Your task to perform on an android device: Search for the new lego star wars 2021 on Target Image 0: 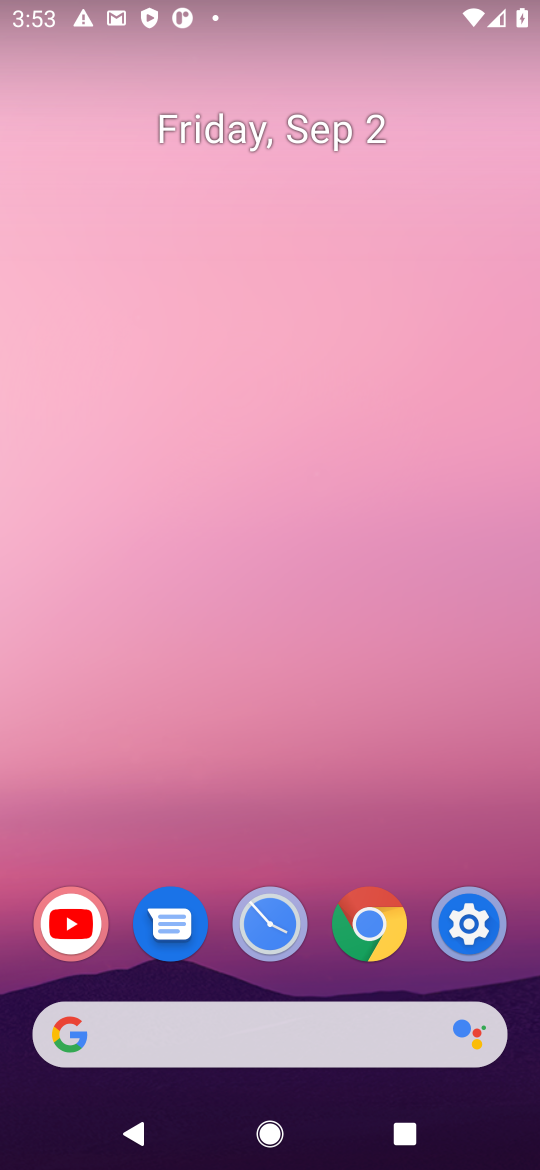
Step 0: press home button
Your task to perform on an android device: Search for the new lego star wars 2021 on Target Image 1: 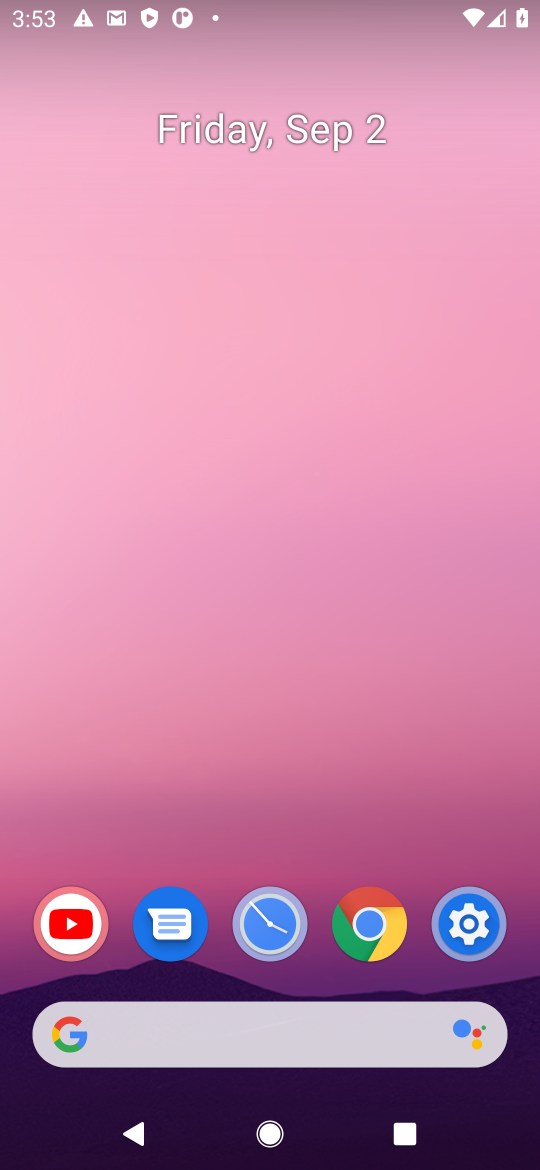
Step 1: click (377, 1027)
Your task to perform on an android device: Search for the new lego star wars 2021 on Target Image 2: 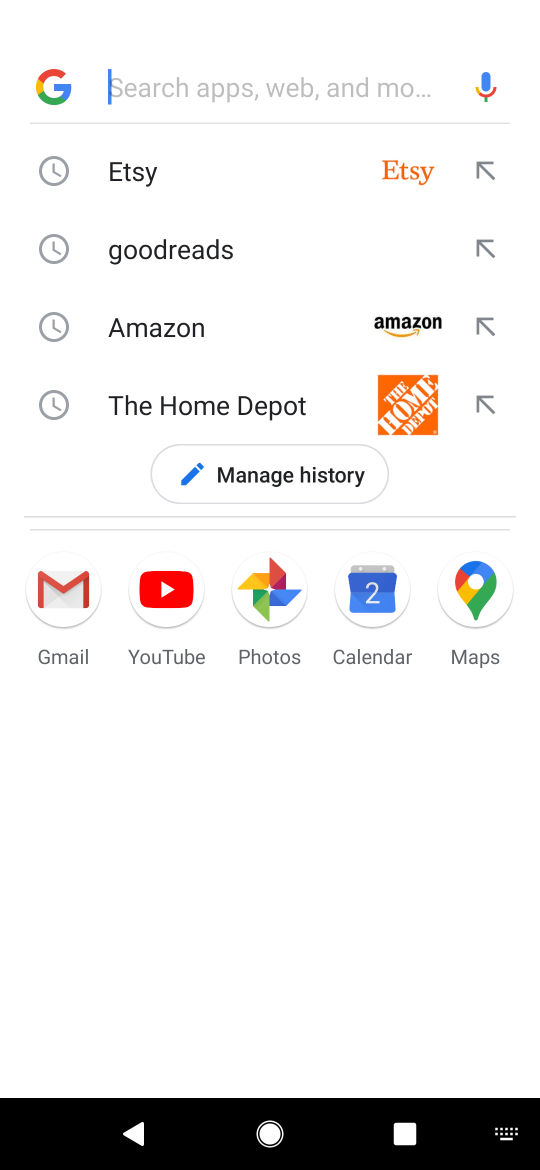
Step 2: press enter
Your task to perform on an android device: Search for the new lego star wars 2021 on Target Image 3: 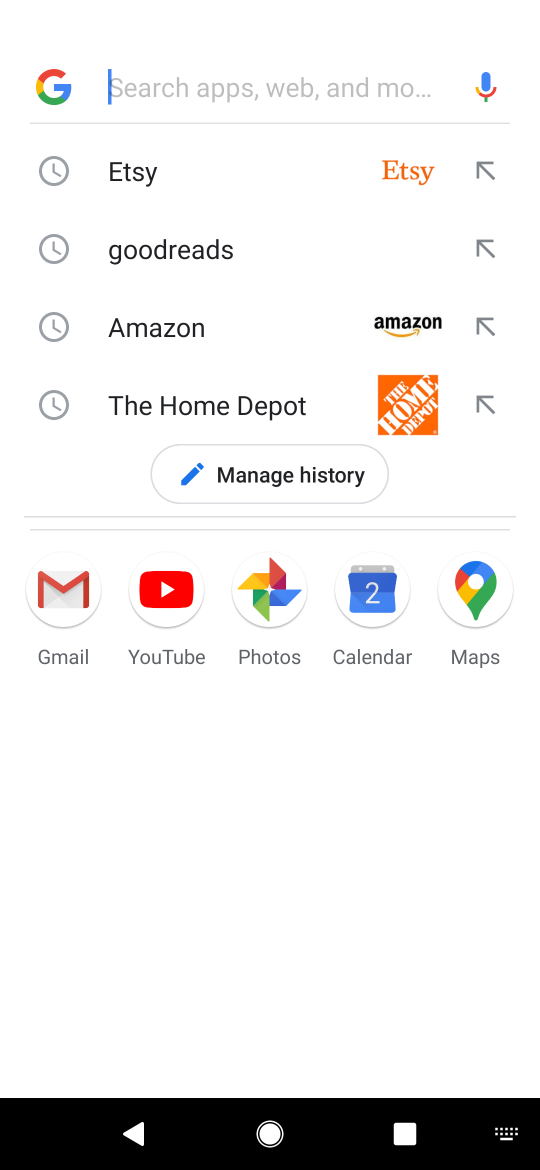
Step 3: type "target"
Your task to perform on an android device: Search for the new lego star wars 2021 on Target Image 4: 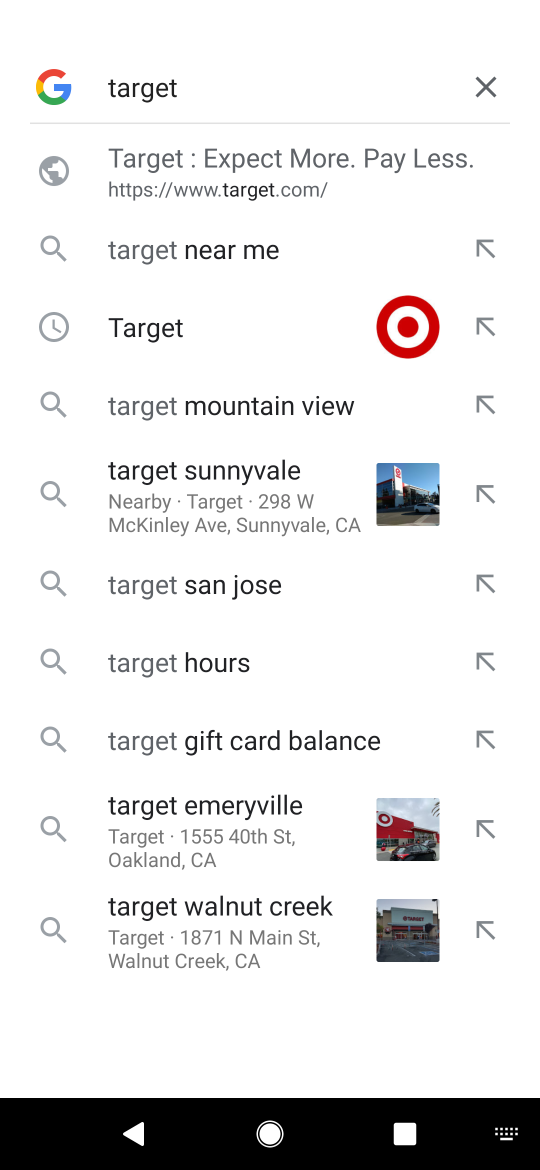
Step 4: click (172, 323)
Your task to perform on an android device: Search for the new lego star wars 2021 on Target Image 5: 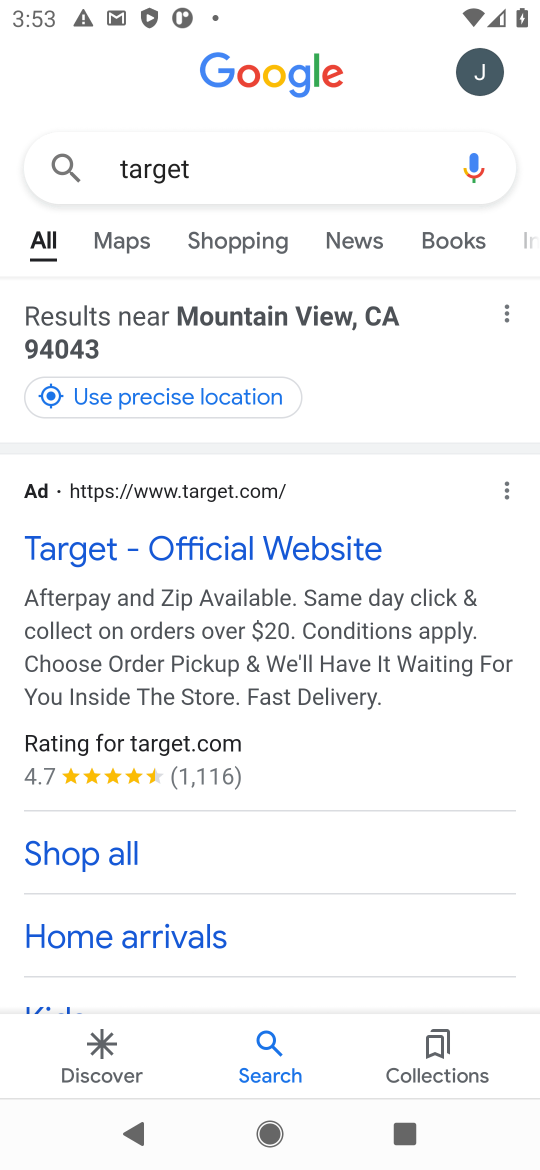
Step 5: click (249, 549)
Your task to perform on an android device: Search for the new lego star wars 2021 on Target Image 6: 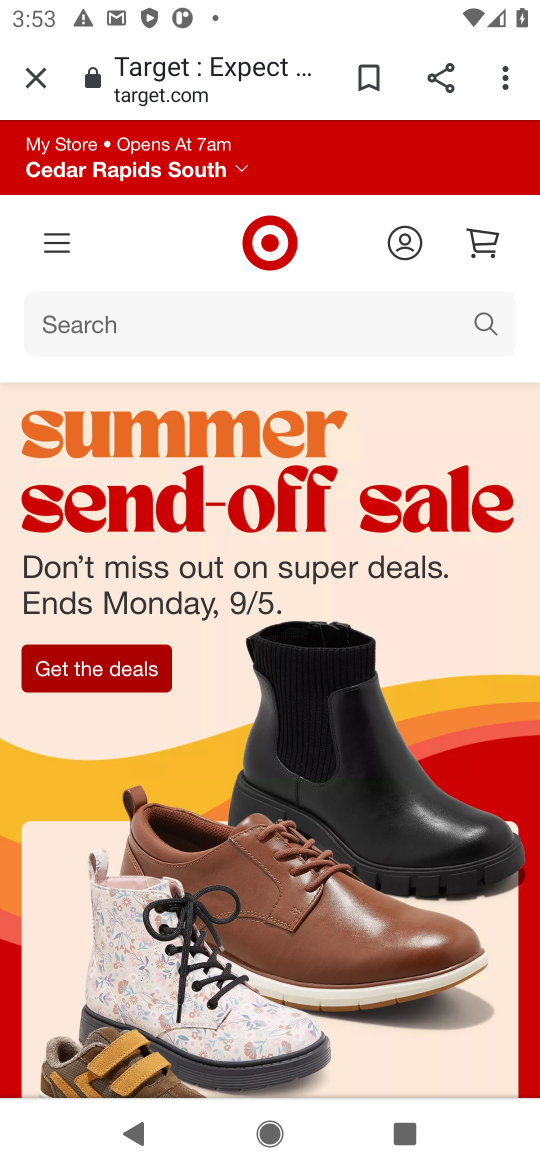
Step 6: click (265, 333)
Your task to perform on an android device: Search for the new lego star wars 2021 on Target Image 7: 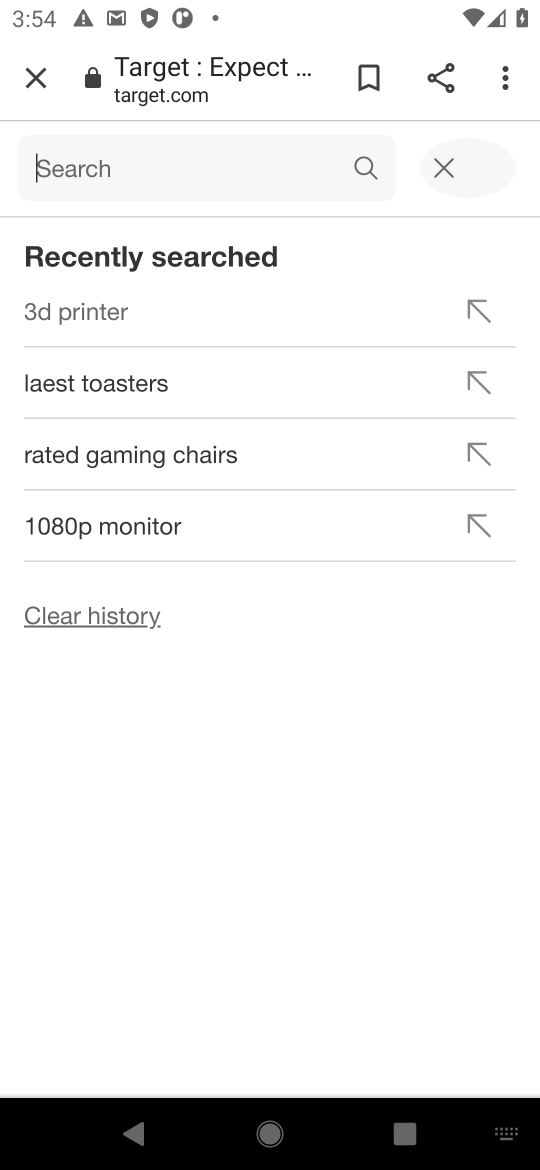
Step 7: type "lego star wars 2021"
Your task to perform on an android device: Search for the new lego star wars 2021 on Target Image 8: 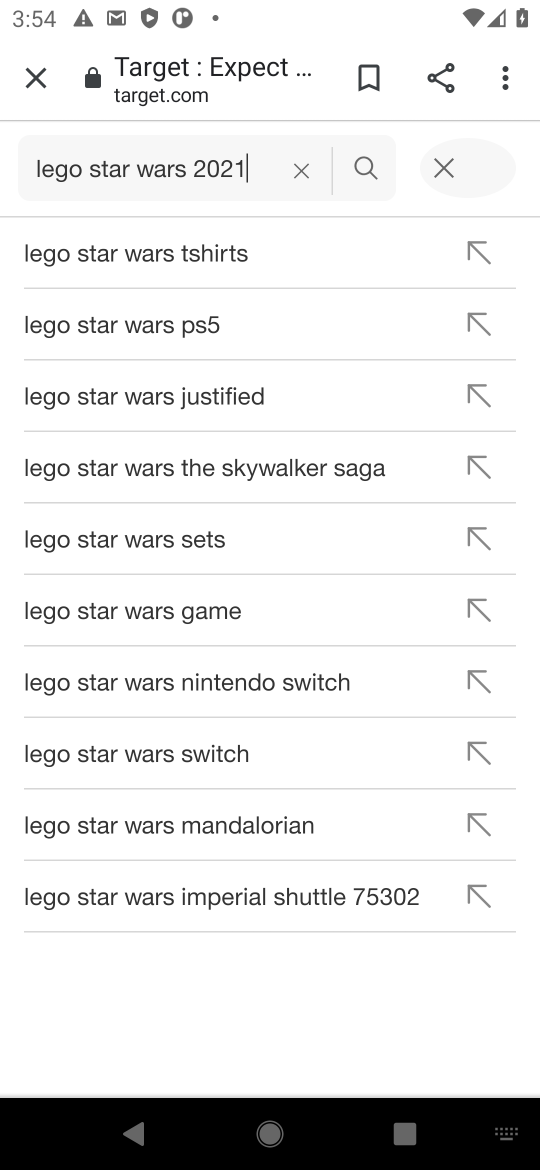
Step 8: click (365, 162)
Your task to perform on an android device: Search for the new lego star wars 2021 on Target Image 9: 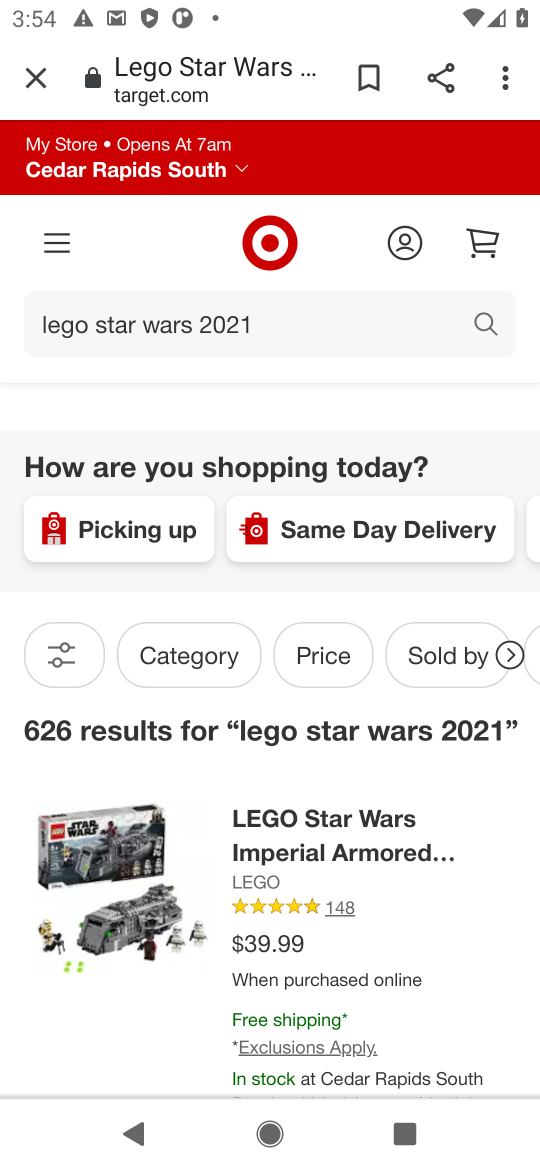
Step 9: task complete